Your task to perform on an android device: Go to CNN.com Image 0: 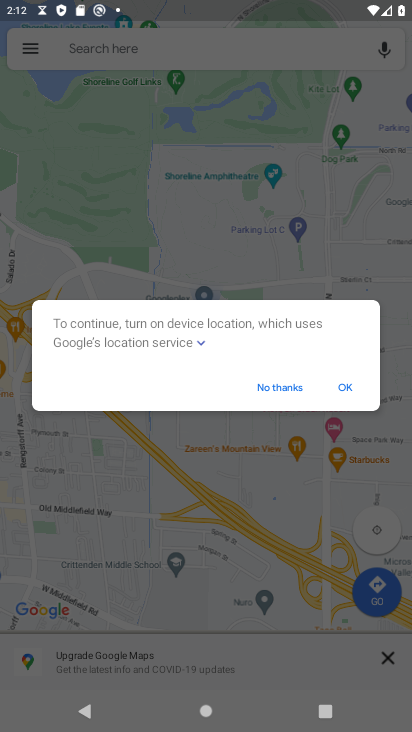
Step 0: press home button
Your task to perform on an android device: Go to CNN.com Image 1: 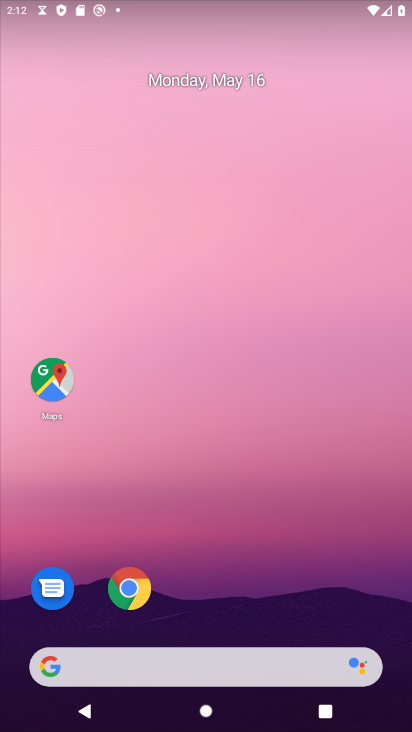
Step 1: click (130, 592)
Your task to perform on an android device: Go to CNN.com Image 2: 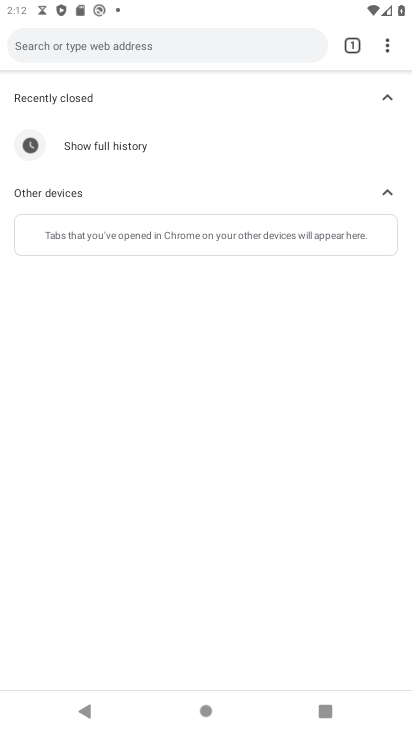
Step 2: click (388, 53)
Your task to perform on an android device: Go to CNN.com Image 3: 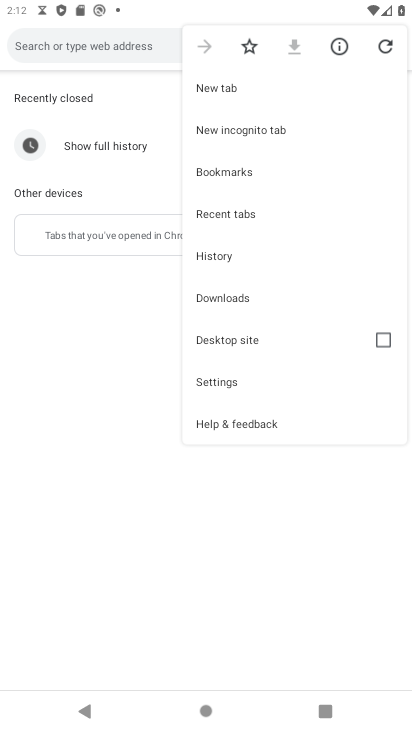
Step 3: click (217, 89)
Your task to perform on an android device: Go to CNN.com Image 4: 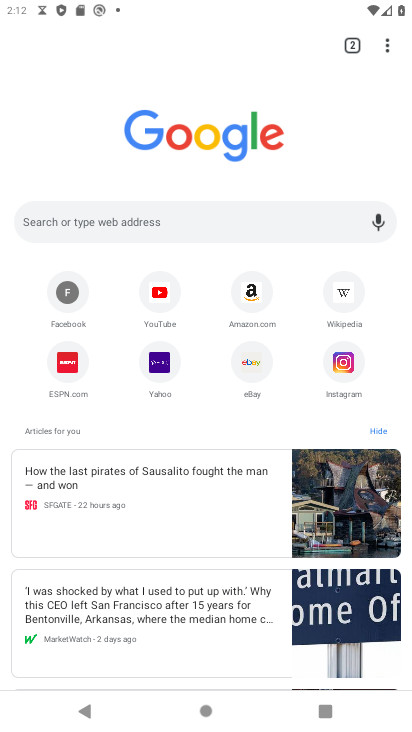
Step 4: click (115, 219)
Your task to perform on an android device: Go to CNN.com Image 5: 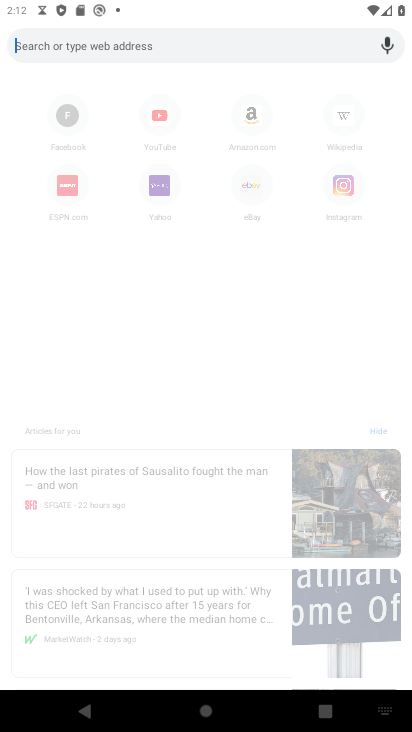
Step 5: type "CNN.com"
Your task to perform on an android device: Go to CNN.com Image 6: 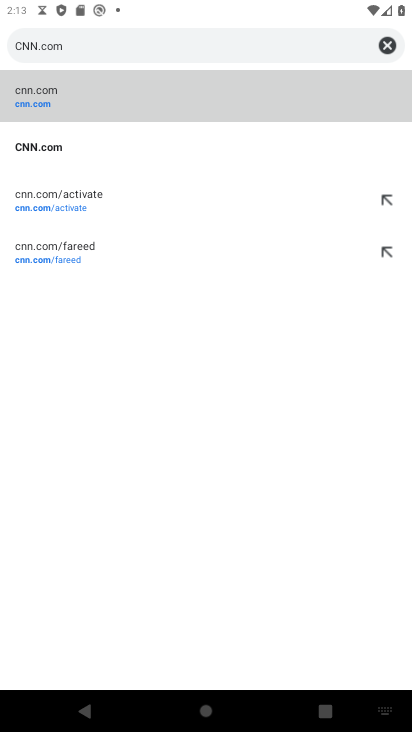
Step 6: click (88, 105)
Your task to perform on an android device: Go to CNN.com Image 7: 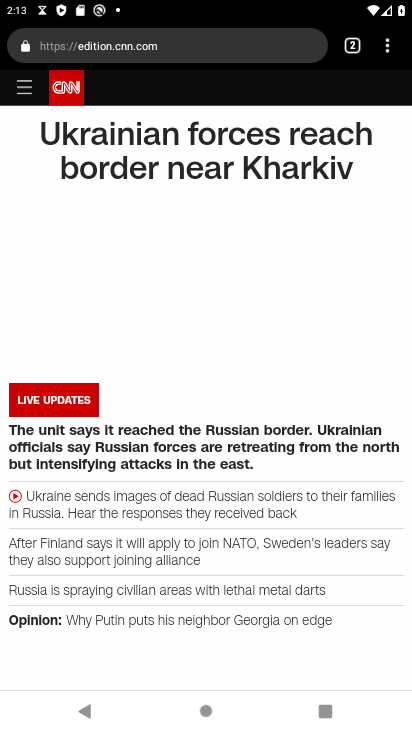
Step 7: task complete